Your task to perform on an android device: Show the shopping cart on costco. Add "apple airpods pro" to the cart on costco Image 0: 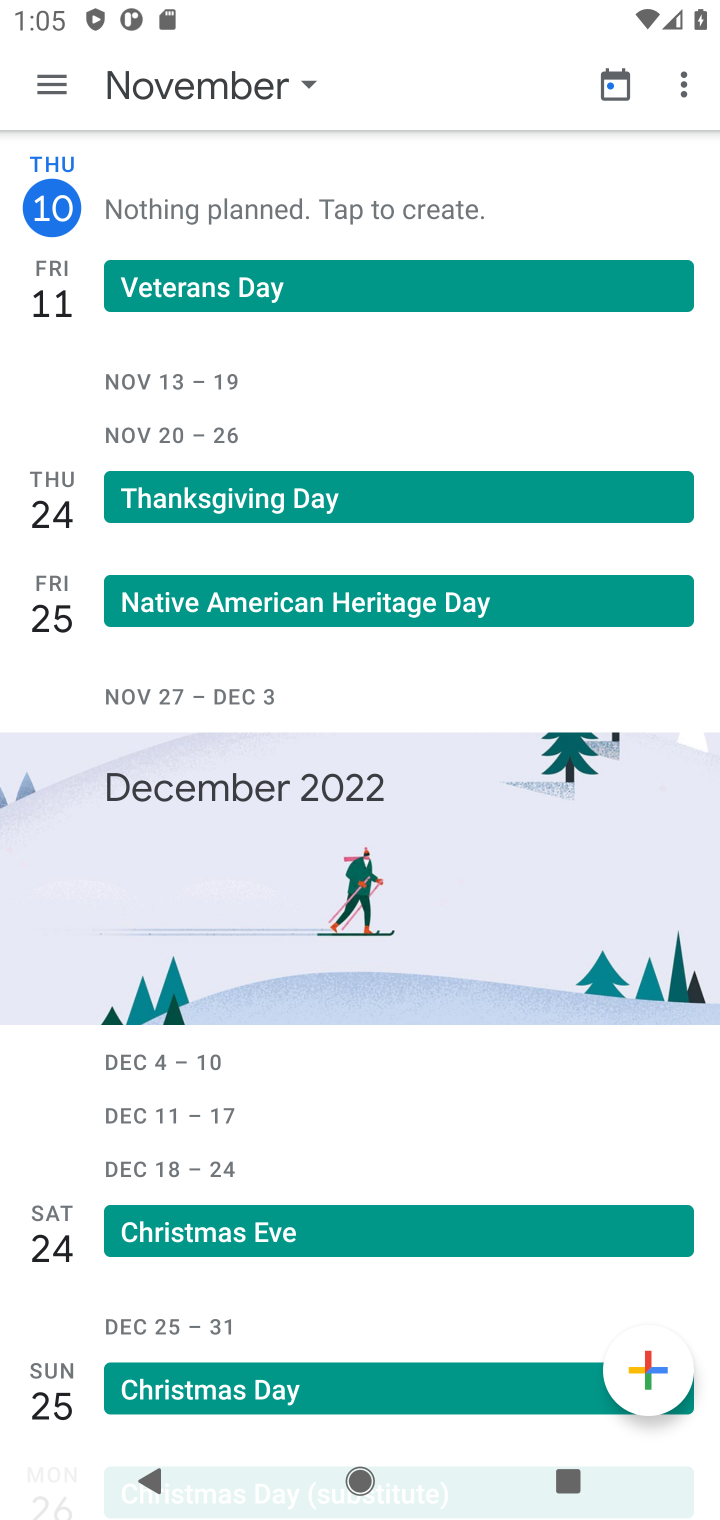
Step 0: press home button
Your task to perform on an android device: Show the shopping cart on costco. Add "apple airpods pro" to the cart on costco Image 1: 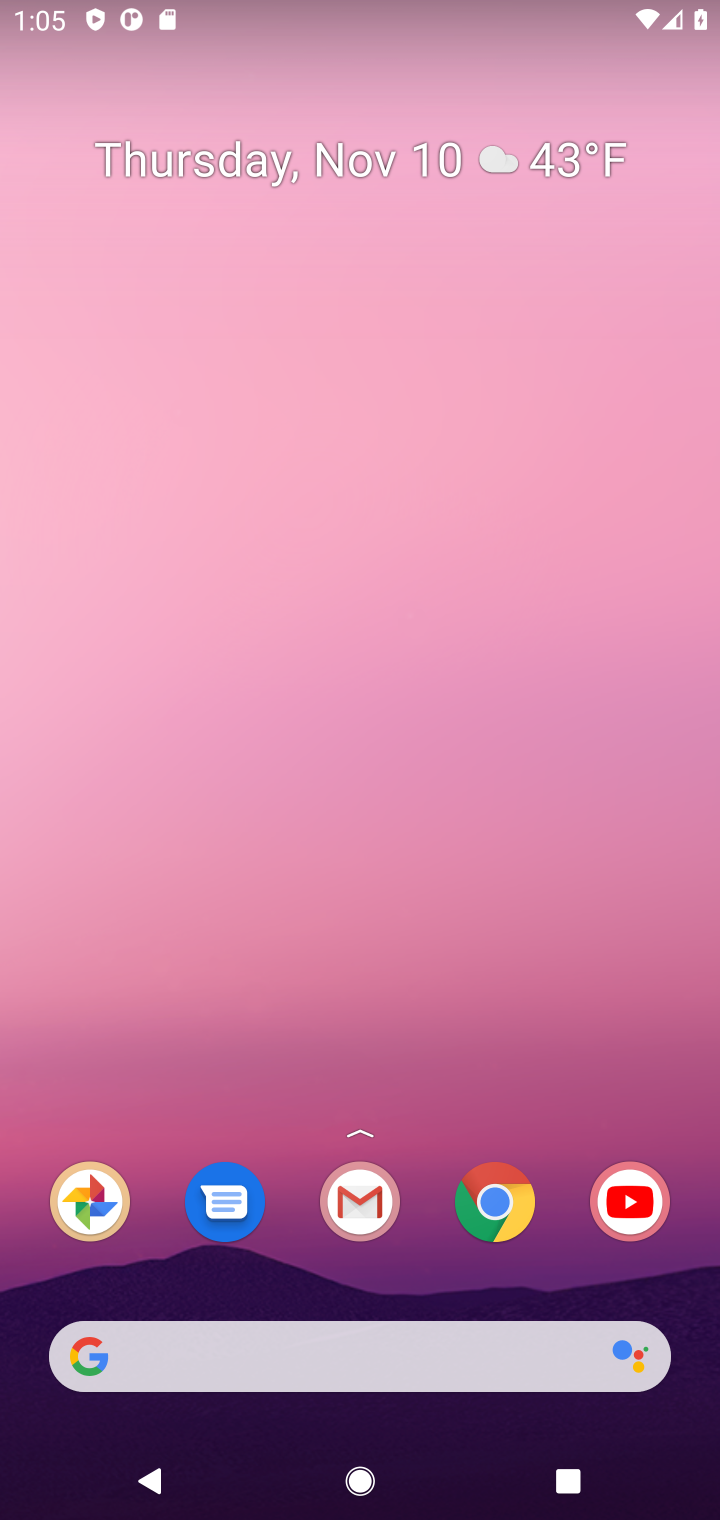
Step 1: click (492, 1201)
Your task to perform on an android device: Show the shopping cart on costco. Add "apple airpods pro" to the cart on costco Image 2: 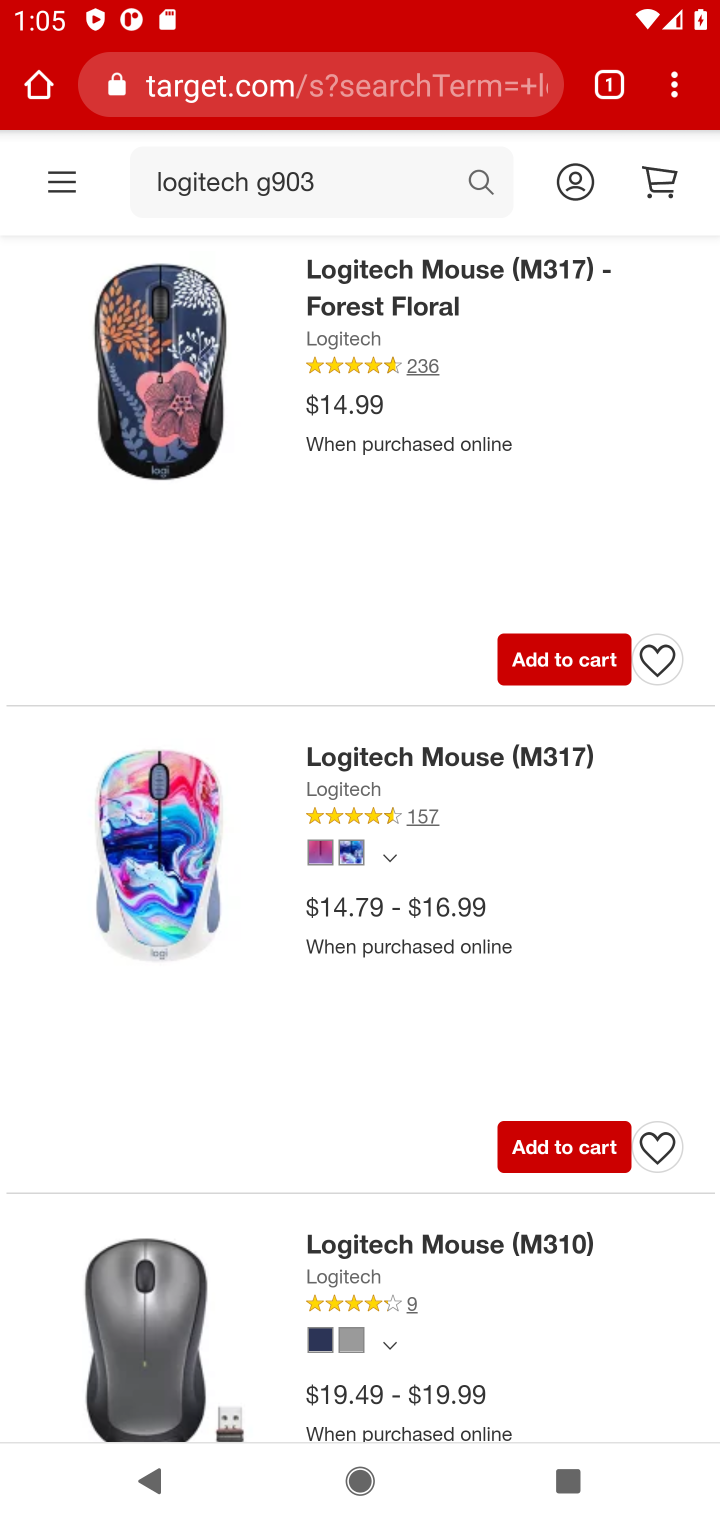
Step 2: click (351, 90)
Your task to perform on an android device: Show the shopping cart on costco. Add "apple airpods pro" to the cart on costco Image 3: 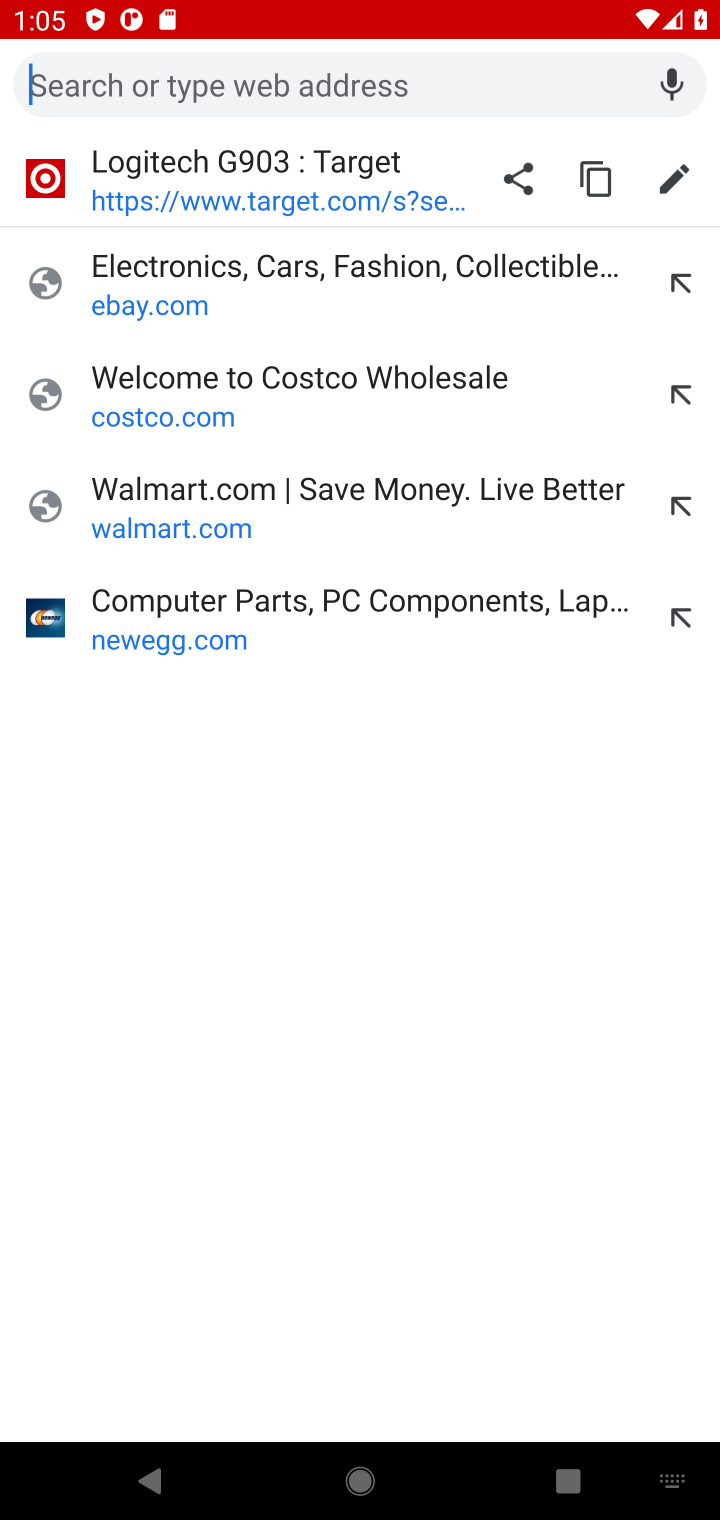
Step 3: click (308, 379)
Your task to perform on an android device: Show the shopping cart on costco. Add "apple airpods pro" to the cart on costco Image 4: 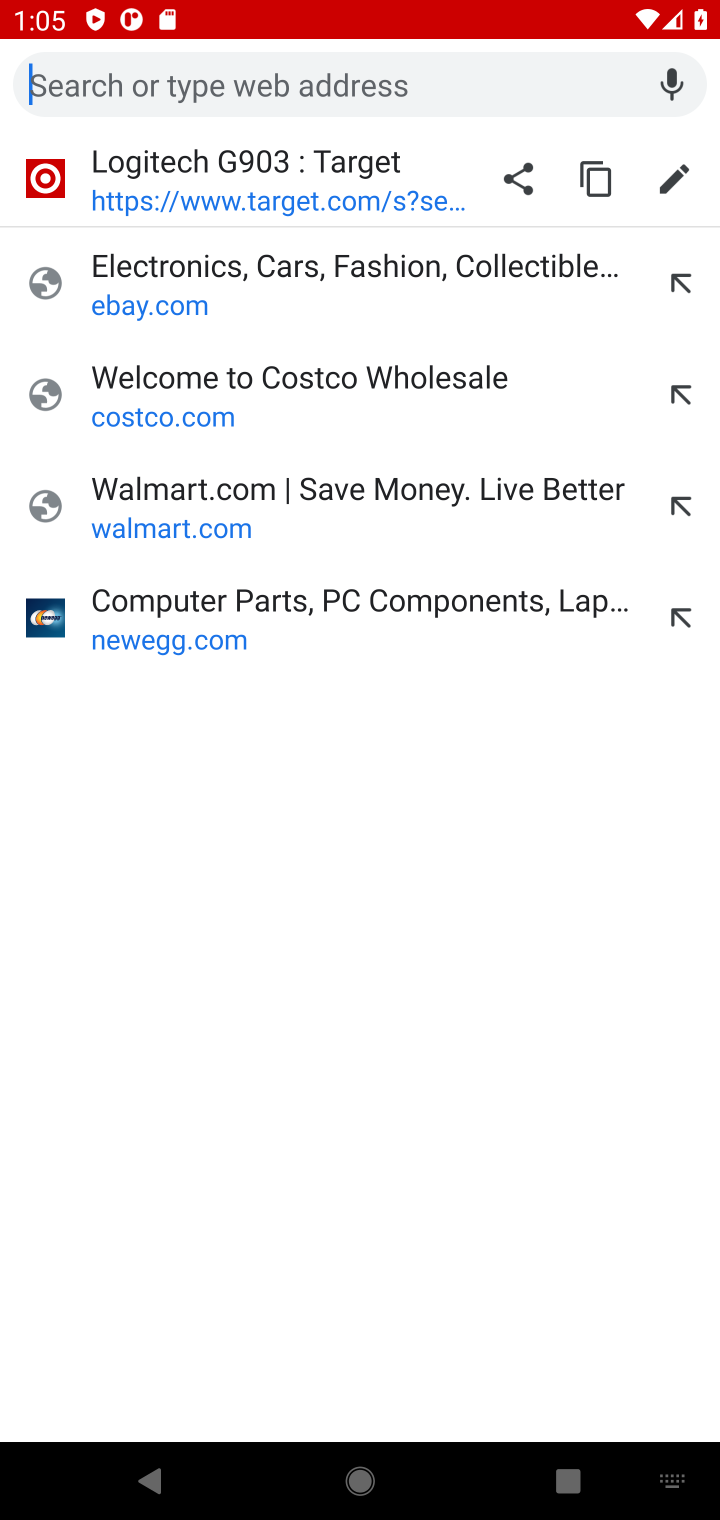
Step 4: click (359, 375)
Your task to perform on an android device: Show the shopping cart on costco. Add "apple airpods pro" to the cart on costco Image 5: 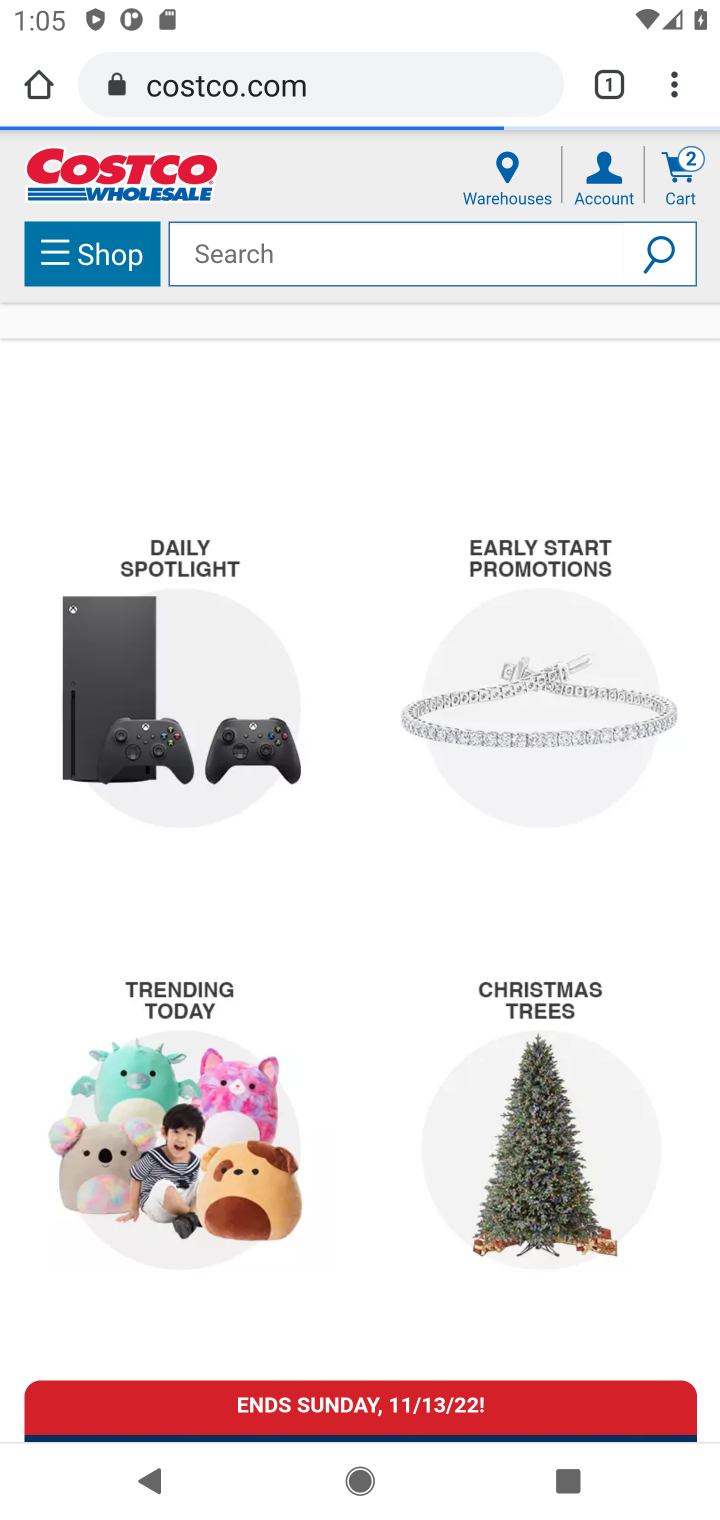
Step 5: click (685, 181)
Your task to perform on an android device: Show the shopping cart on costco. Add "apple airpods pro" to the cart on costco Image 6: 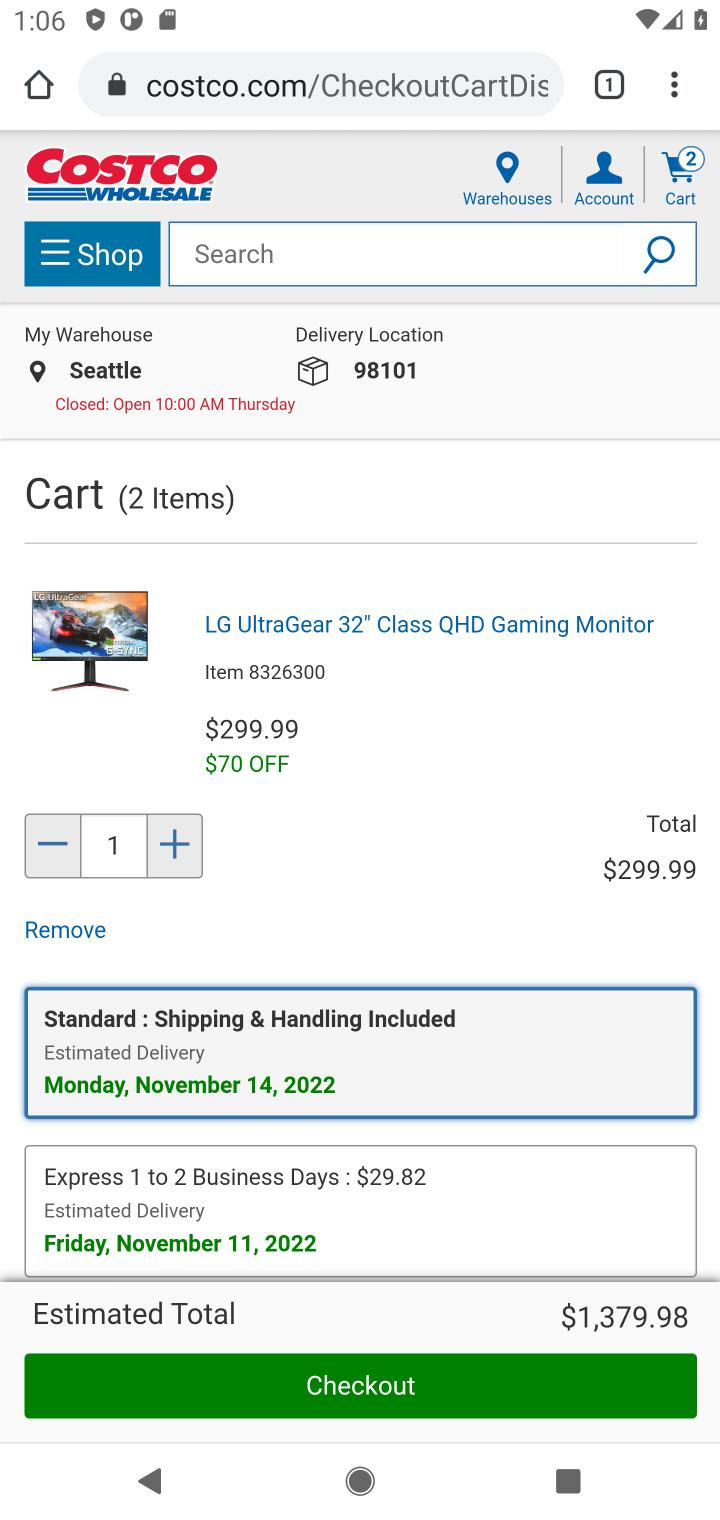
Step 6: click (501, 256)
Your task to perform on an android device: Show the shopping cart on costco. Add "apple airpods pro" to the cart on costco Image 7: 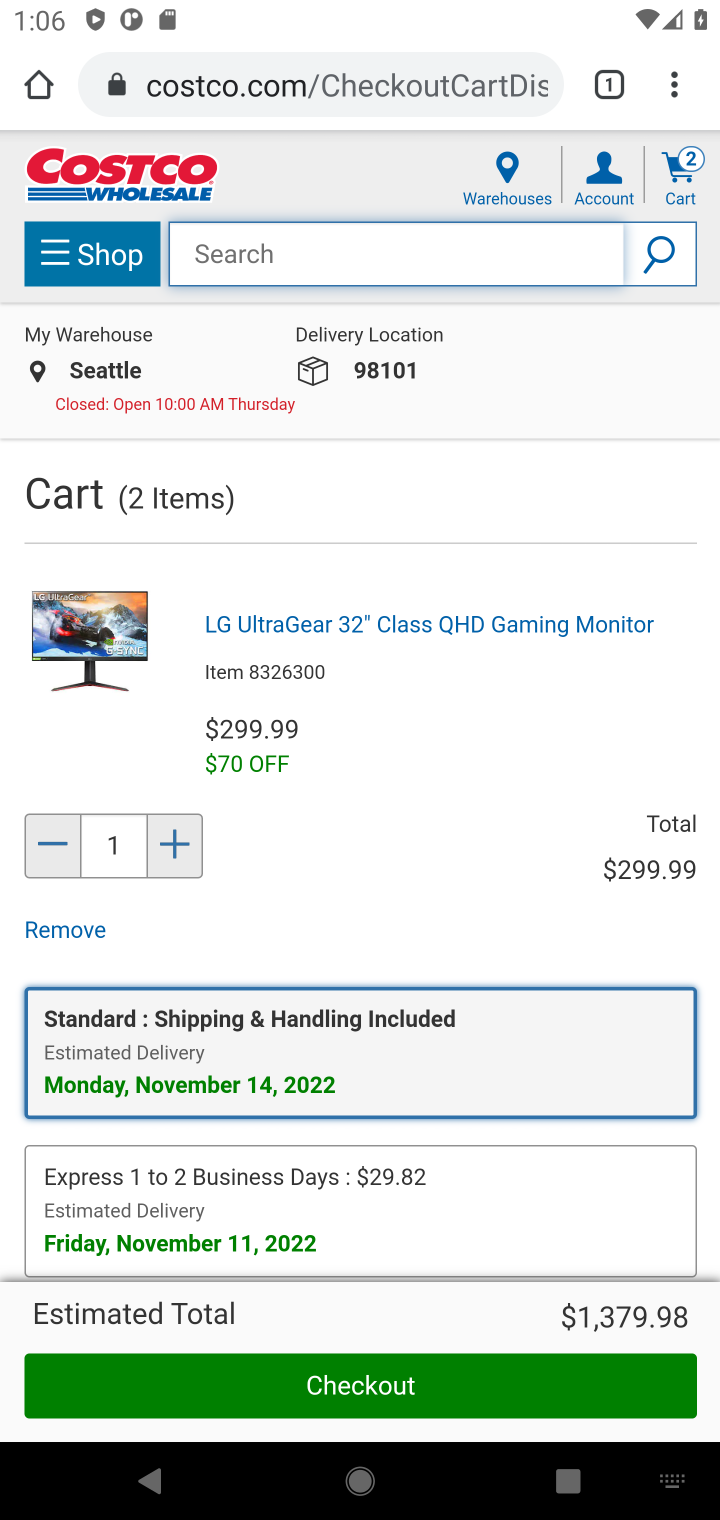
Step 7: type "apple airpods pro"
Your task to perform on an android device: Show the shopping cart on costco. Add "apple airpods pro" to the cart on costco Image 8: 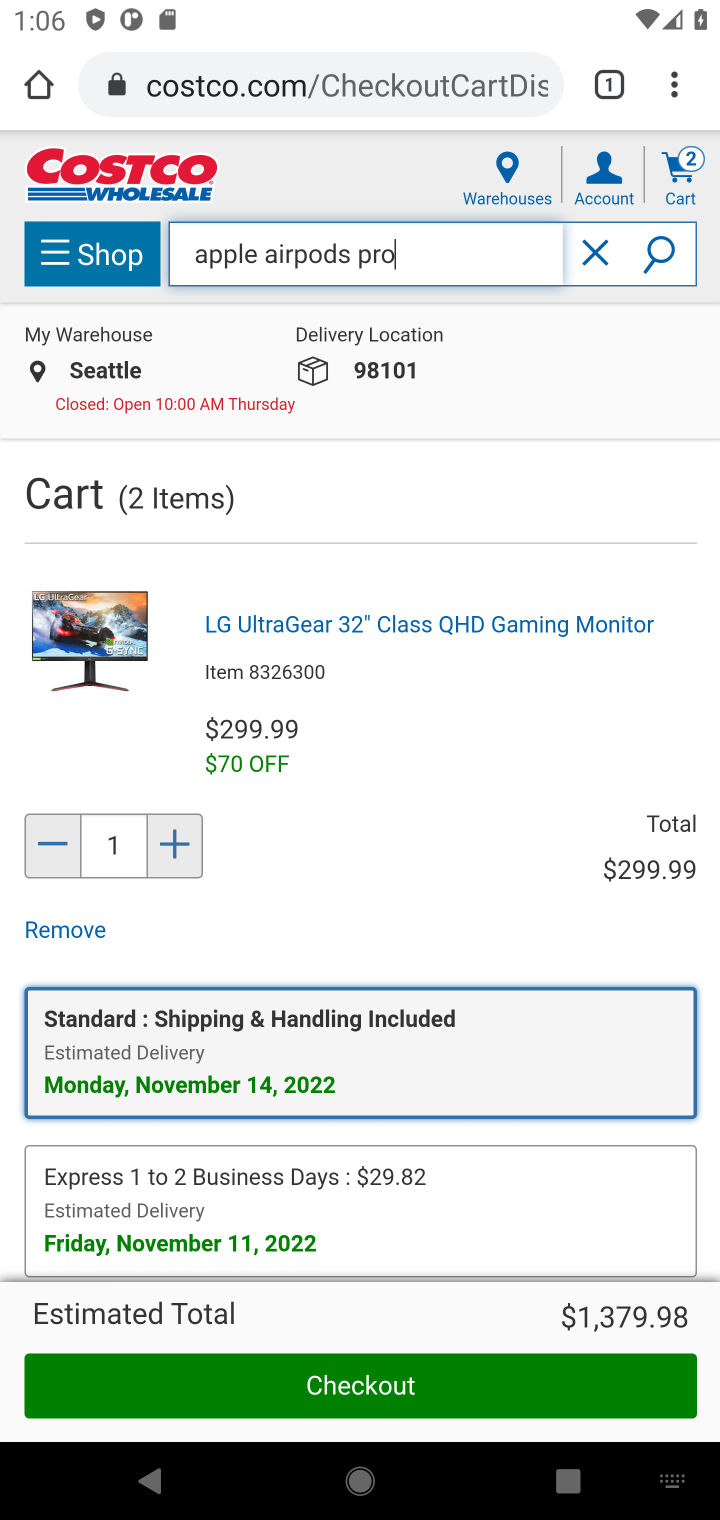
Step 8: press enter
Your task to perform on an android device: Show the shopping cart on costco. Add "apple airpods pro" to the cart on costco Image 9: 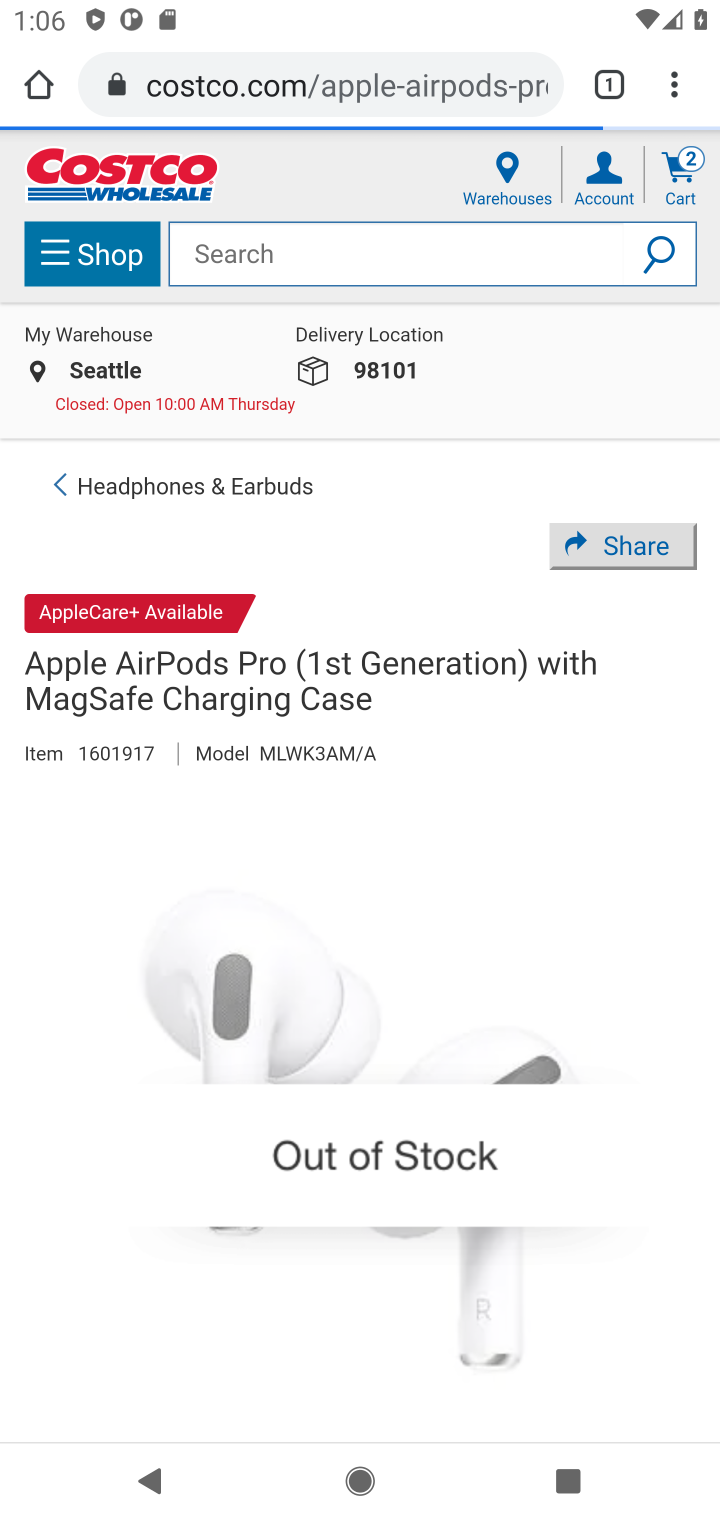
Step 9: drag from (347, 898) to (477, 375)
Your task to perform on an android device: Show the shopping cart on costco. Add "apple airpods pro" to the cart on costco Image 10: 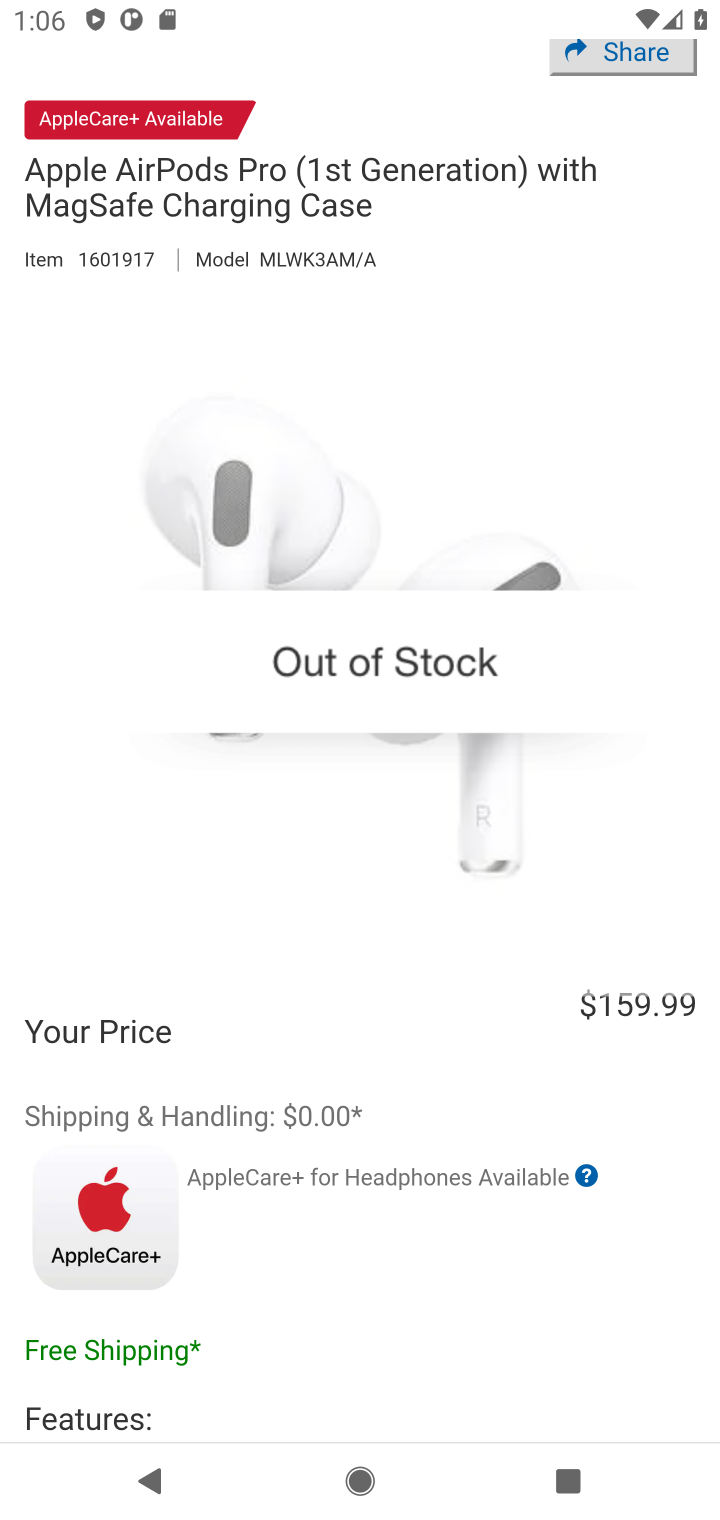
Step 10: press back button
Your task to perform on an android device: Show the shopping cart on costco. Add "apple airpods pro" to the cart on costco Image 11: 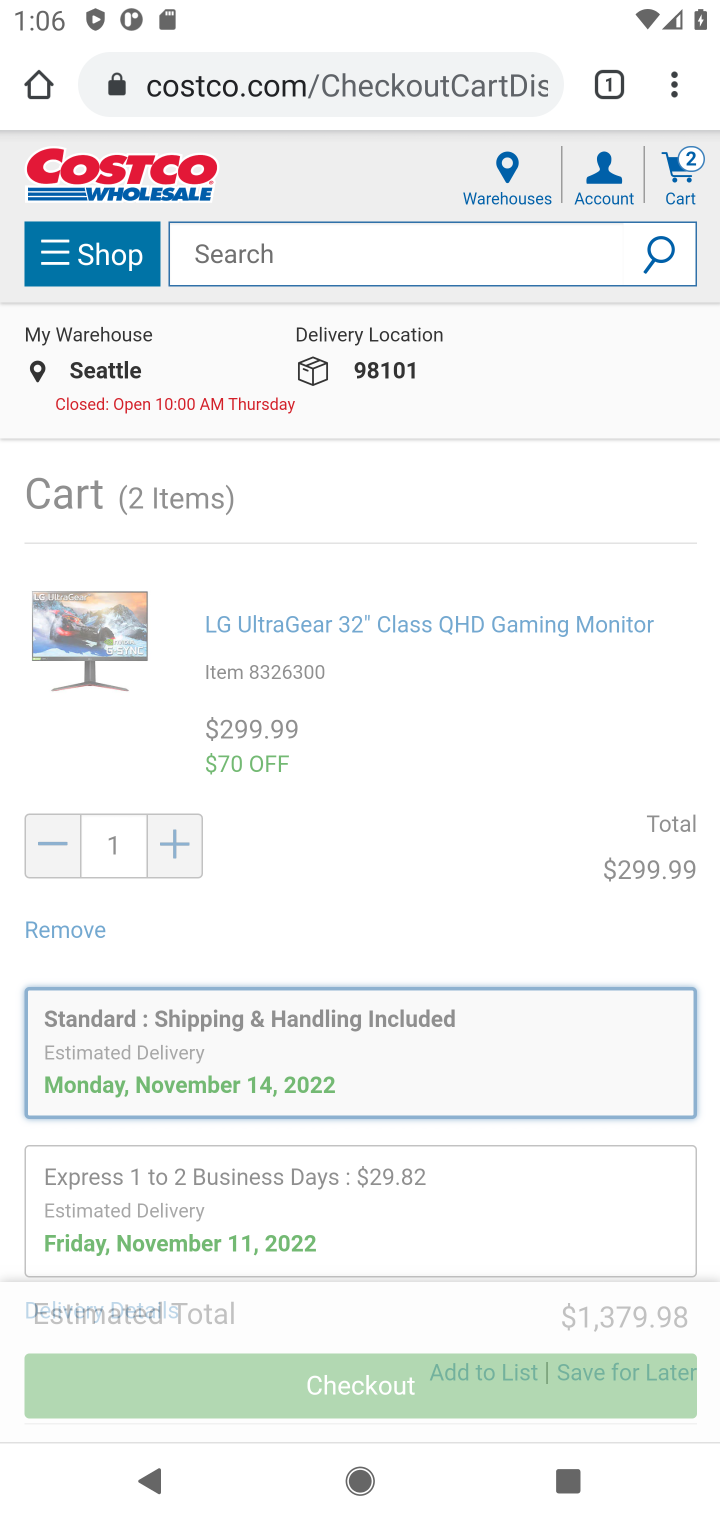
Step 11: click (414, 250)
Your task to perform on an android device: Show the shopping cart on costco. Add "apple airpods pro" to the cart on costco Image 12: 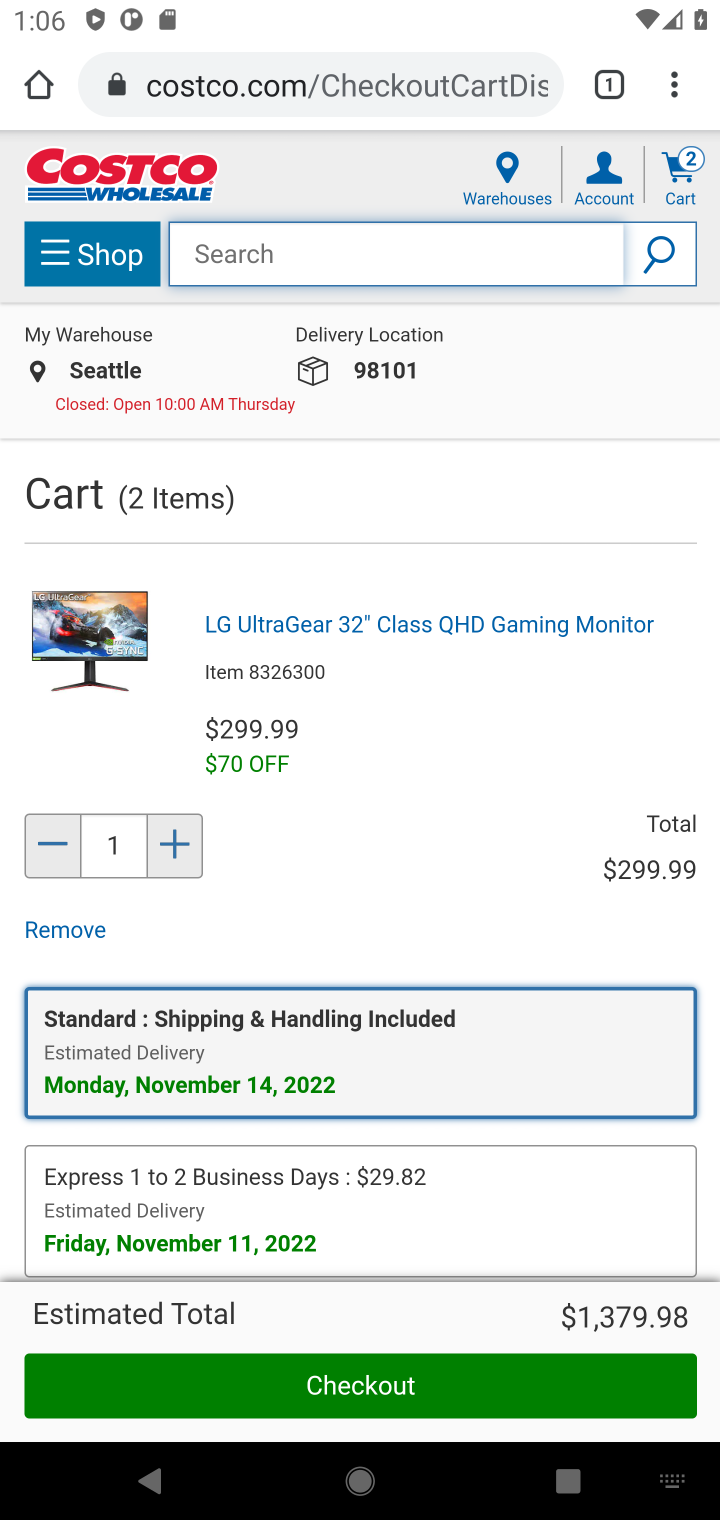
Step 12: press enter
Your task to perform on an android device: Show the shopping cart on costco. Add "apple airpods pro" to the cart on costco Image 13: 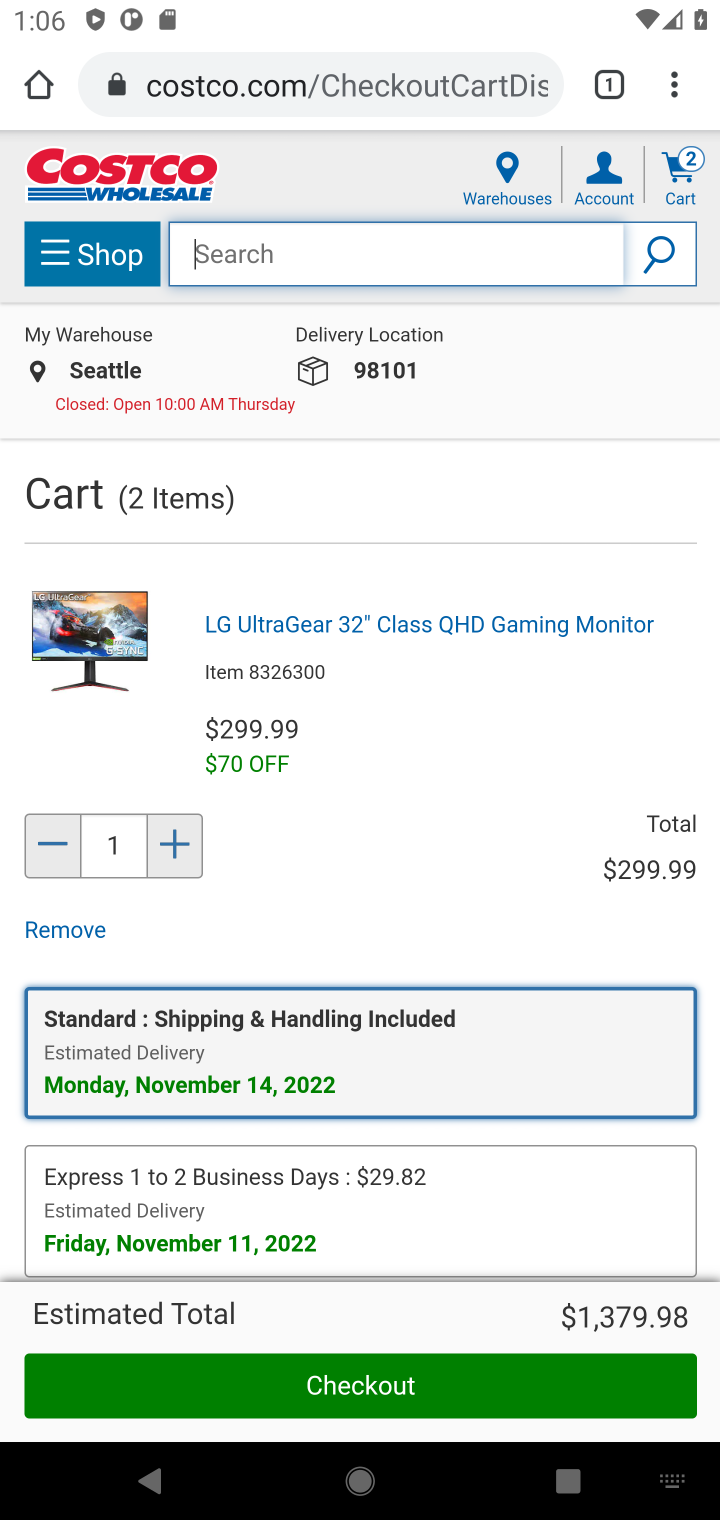
Step 13: type "apple airpods pro"
Your task to perform on an android device: Show the shopping cart on costco. Add "apple airpods pro" to the cart on costco Image 14: 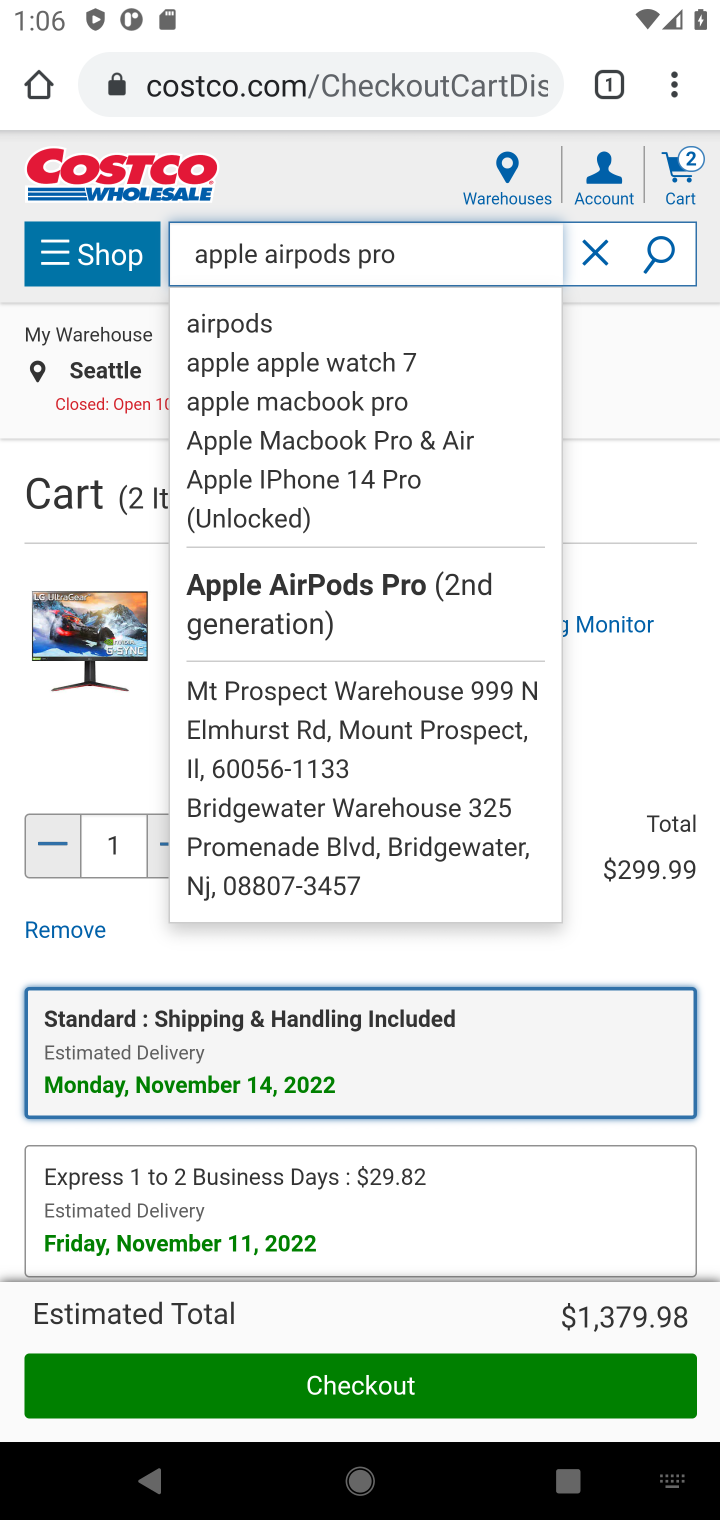
Step 14: click (643, 361)
Your task to perform on an android device: Show the shopping cart on costco. Add "apple airpods pro" to the cart on costco Image 15: 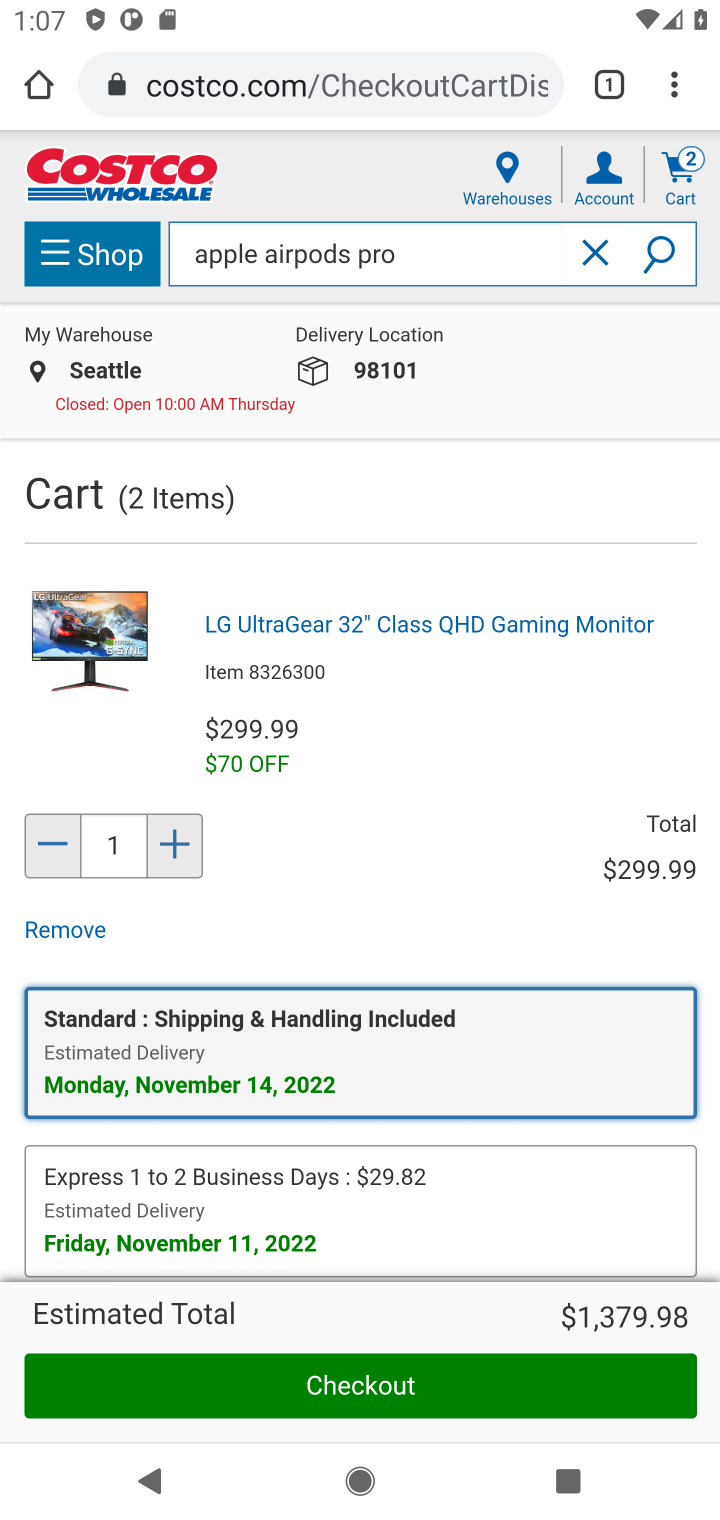
Step 15: task complete